Your task to perform on an android device: Open the map Image 0: 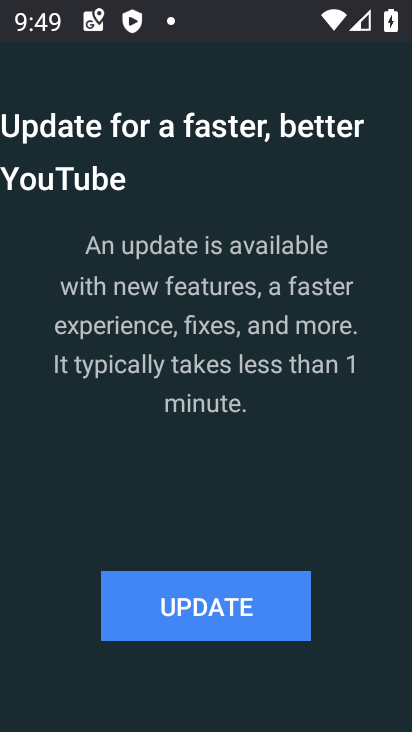
Step 0: press home button
Your task to perform on an android device: Open the map Image 1: 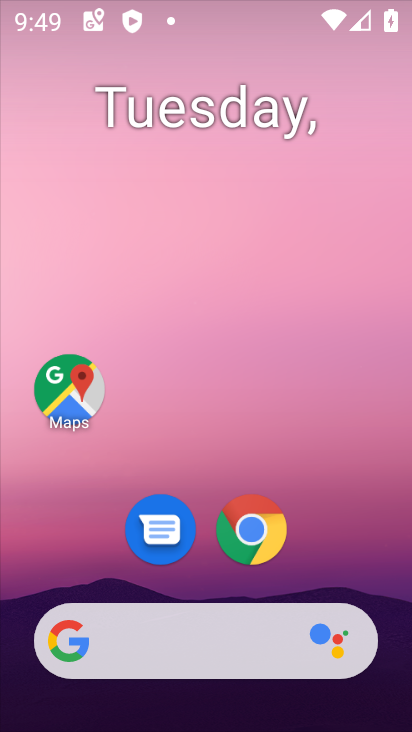
Step 1: drag from (164, 688) to (222, 190)
Your task to perform on an android device: Open the map Image 2: 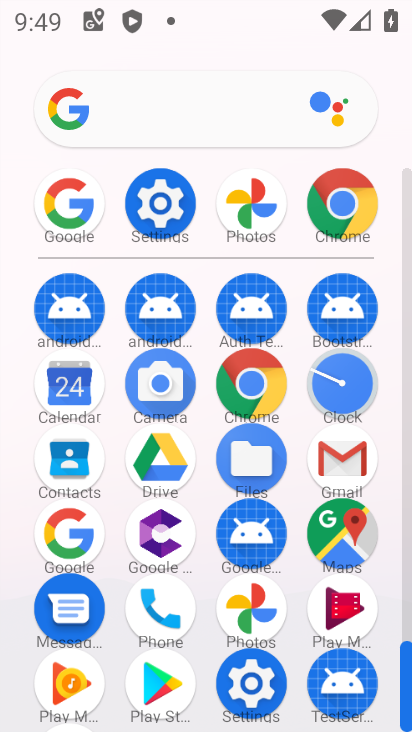
Step 2: click (349, 538)
Your task to perform on an android device: Open the map Image 3: 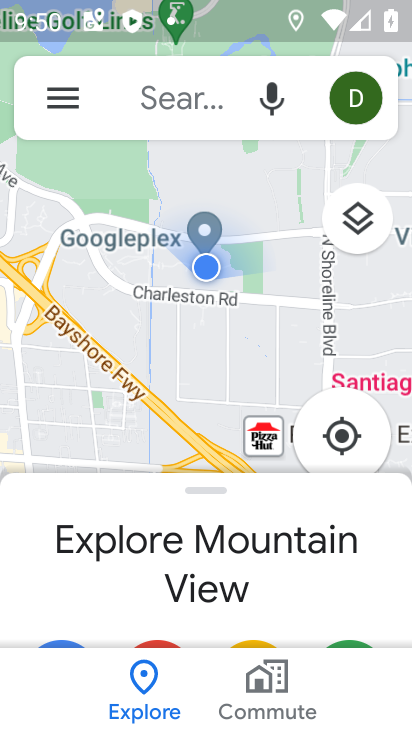
Step 3: task complete